Your task to perform on an android device: What's the news in Taiwan? Image 0: 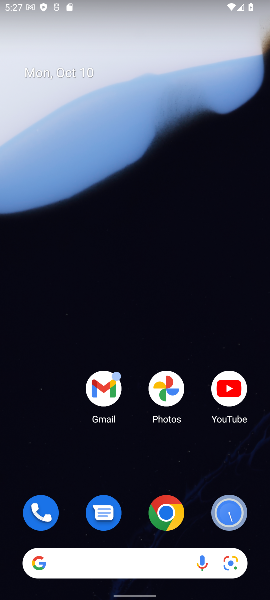
Step 0: click (93, 557)
Your task to perform on an android device: What's the news in Taiwan? Image 1: 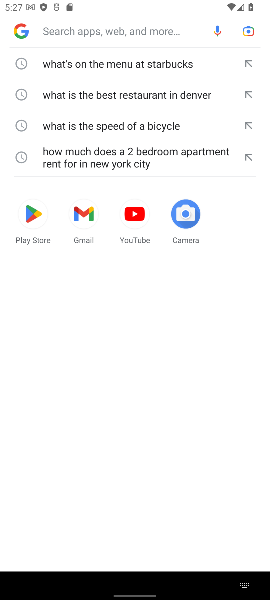
Step 1: type "What's the news in Taiwan?"
Your task to perform on an android device: What's the news in Taiwan? Image 2: 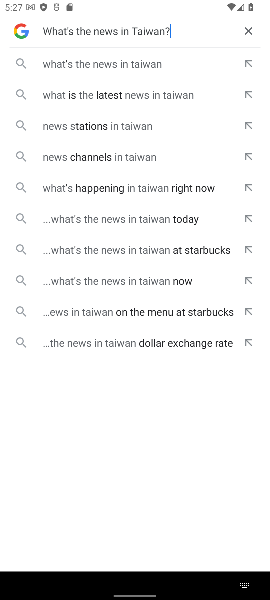
Step 2: click (144, 66)
Your task to perform on an android device: What's the news in Taiwan? Image 3: 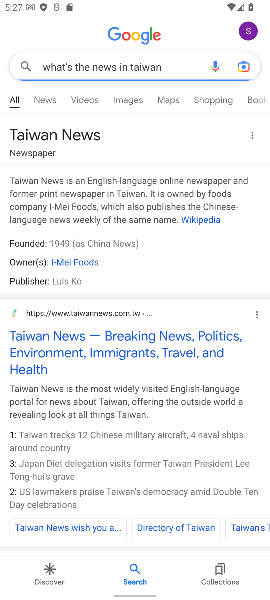
Step 3: task complete